Your task to perform on an android device: open a bookmark in the chrome app Image 0: 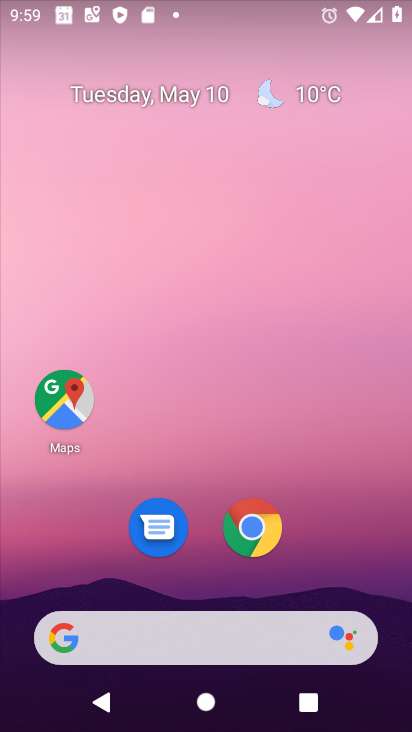
Step 0: click (251, 529)
Your task to perform on an android device: open a bookmark in the chrome app Image 1: 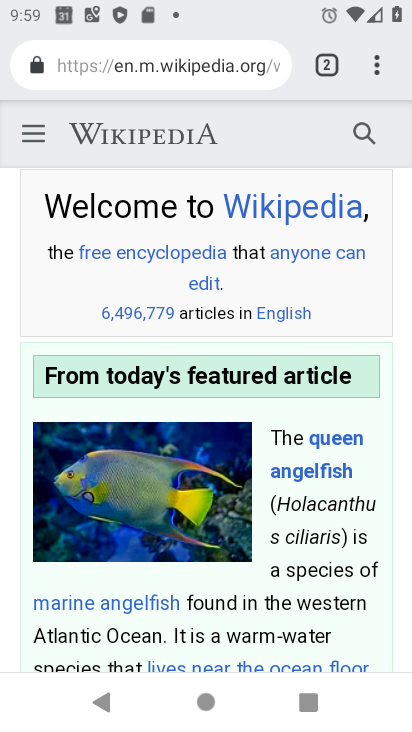
Step 1: click (375, 70)
Your task to perform on an android device: open a bookmark in the chrome app Image 2: 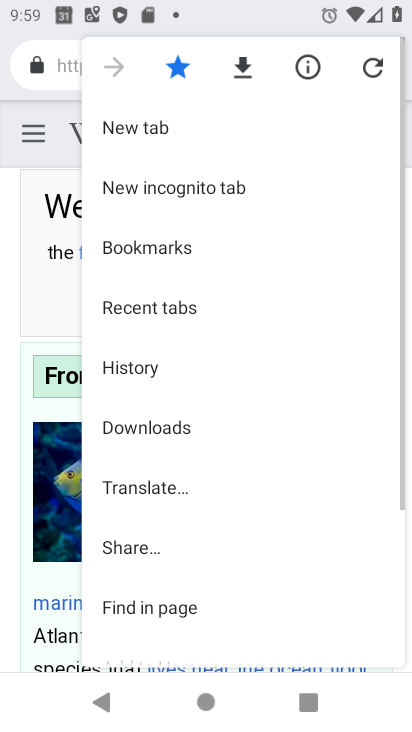
Step 2: click (169, 246)
Your task to perform on an android device: open a bookmark in the chrome app Image 3: 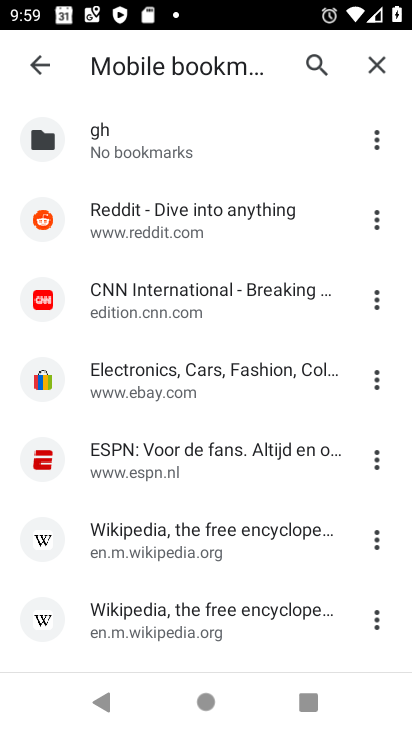
Step 3: click (149, 220)
Your task to perform on an android device: open a bookmark in the chrome app Image 4: 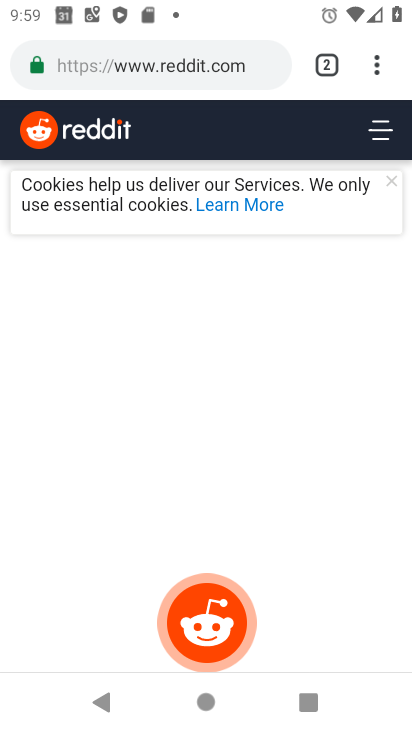
Step 4: task complete